Your task to perform on an android device: read, delete, or share a saved page in the chrome app Image 0: 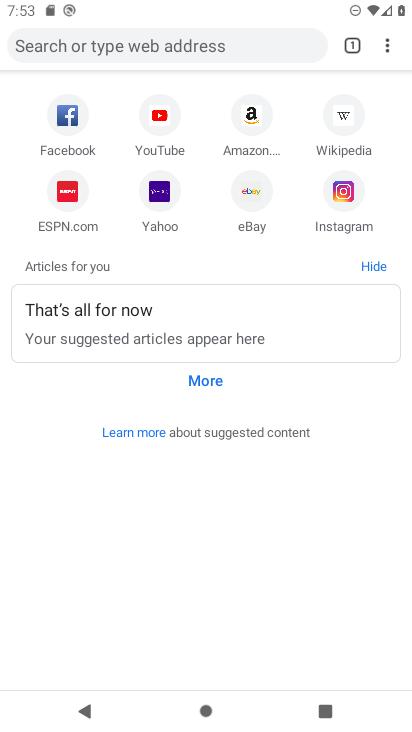
Step 0: press home button
Your task to perform on an android device: read, delete, or share a saved page in the chrome app Image 1: 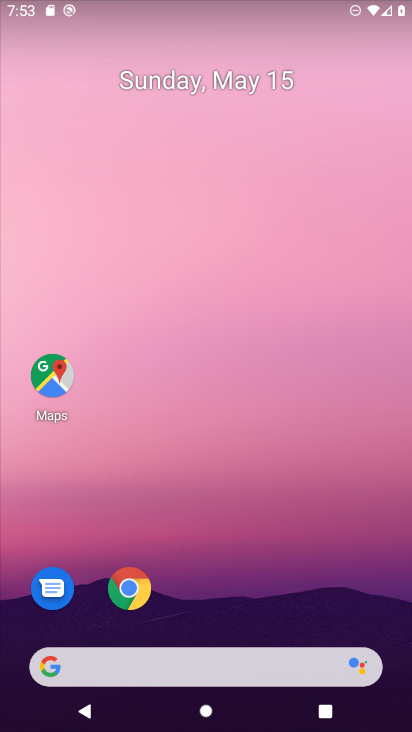
Step 1: click (136, 584)
Your task to perform on an android device: read, delete, or share a saved page in the chrome app Image 2: 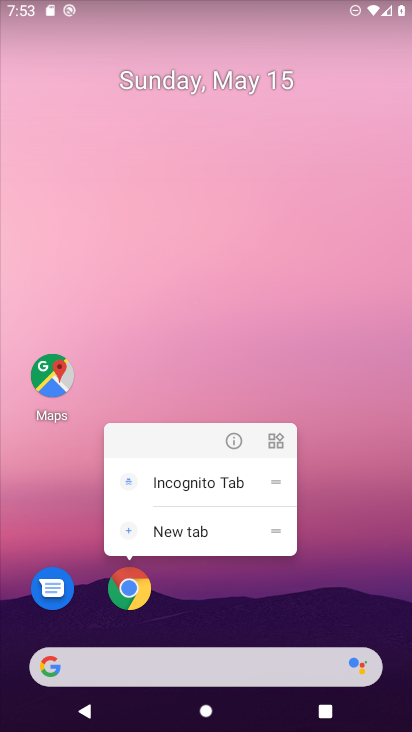
Step 2: click (130, 588)
Your task to perform on an android device: read, delete, or share a saved page in the chrome app Image 3: 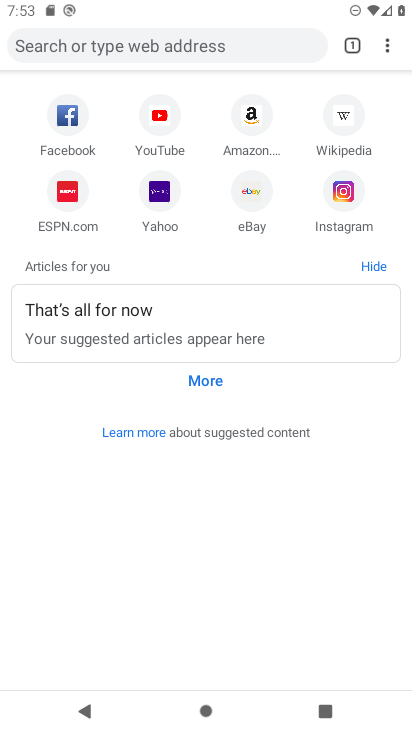
Step 3: click (385, 41)
Your task to perform on an android device: read, delete, or share a saved page in the chrome app Image 4: 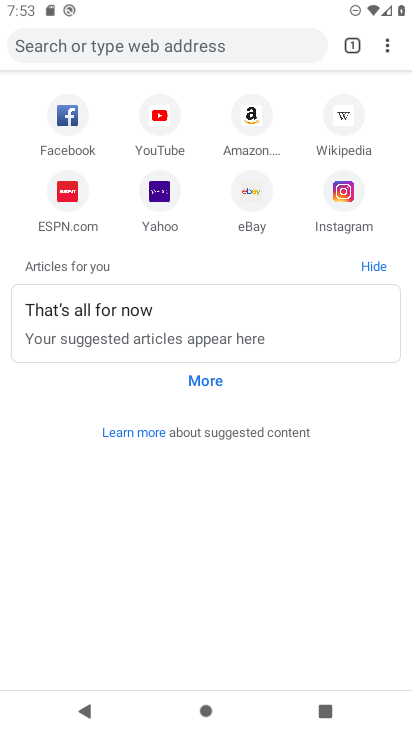
Step 4: click (387, 41)
Your task to perform on an android device: read, delete, or share a saved page in the chrome app Image 5: 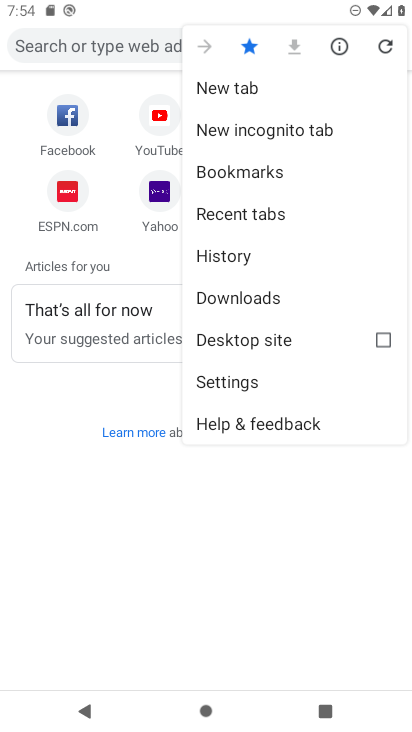
Step 5: click (287, 296)
Your task to perform on an android device: read, delete, or share a saved page in the chrome app Image 6: 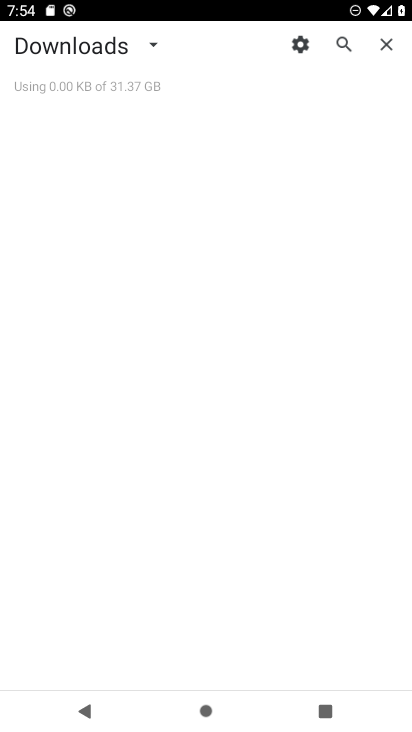
Step 6: task complete